Your task to perform on an android device: Go to internet settings Image 0: 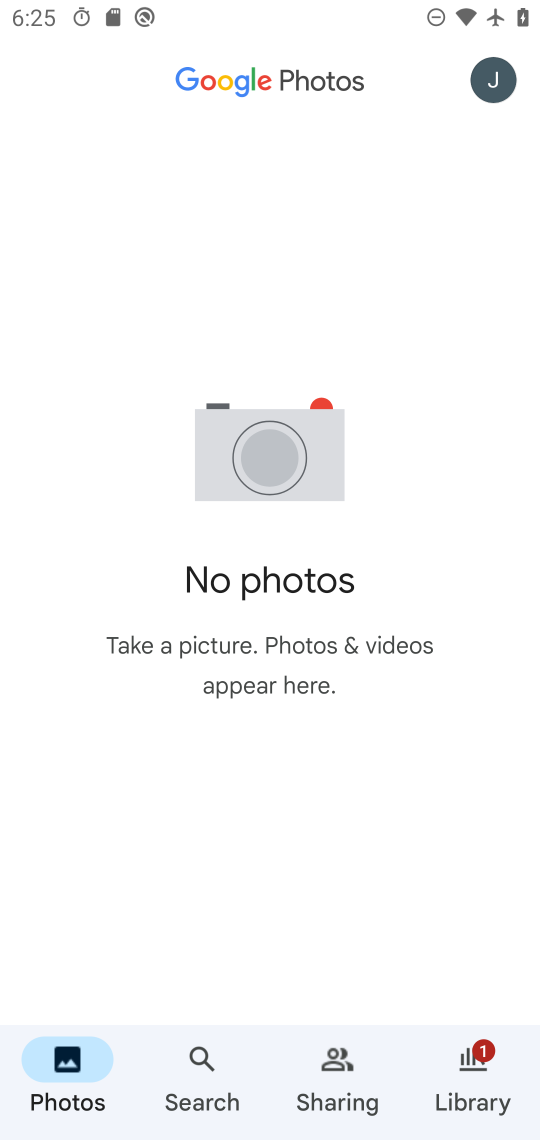
Step 0: press home button
Your task to perform on an android device: Go to internet settings Image 1: 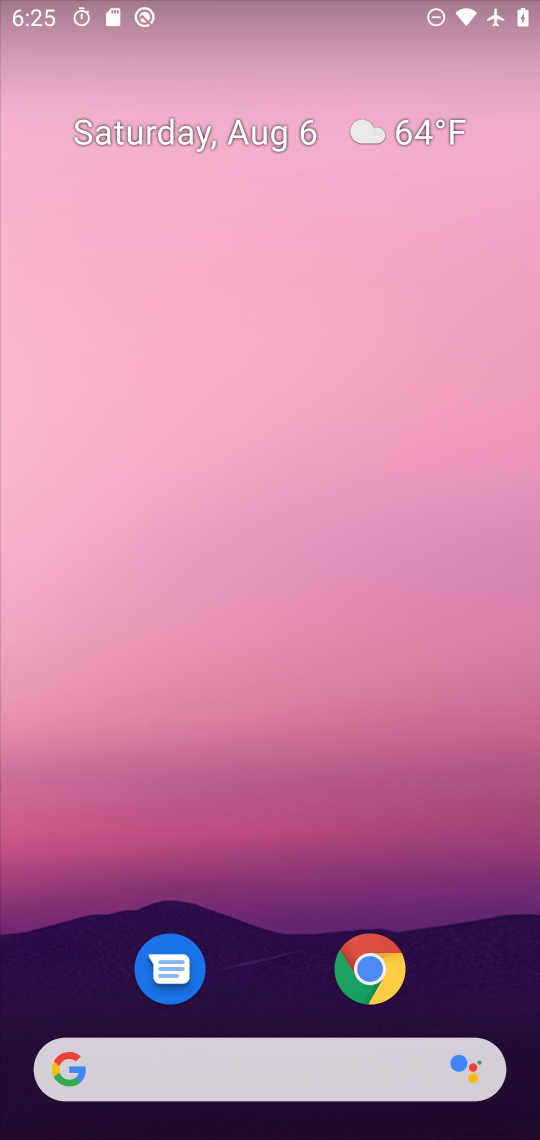
Step 1: drag from (270, 998) to (433, 18)
Your task to perform on an android device: Go to internet settings Image 2: 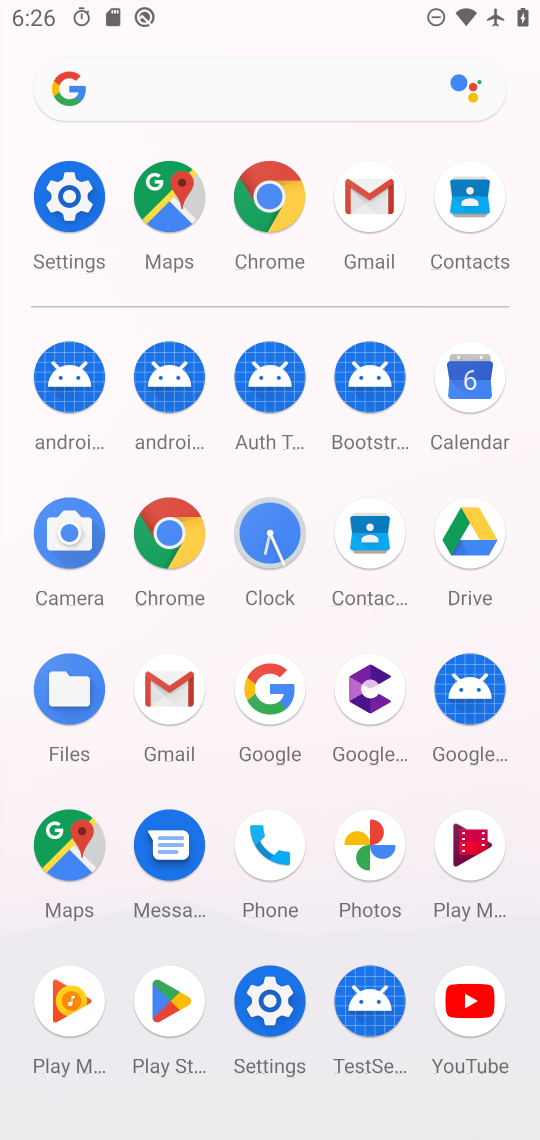
Step 2: click (77, 207)
Your task to perform on an android device: Go to internet settings Image 3: 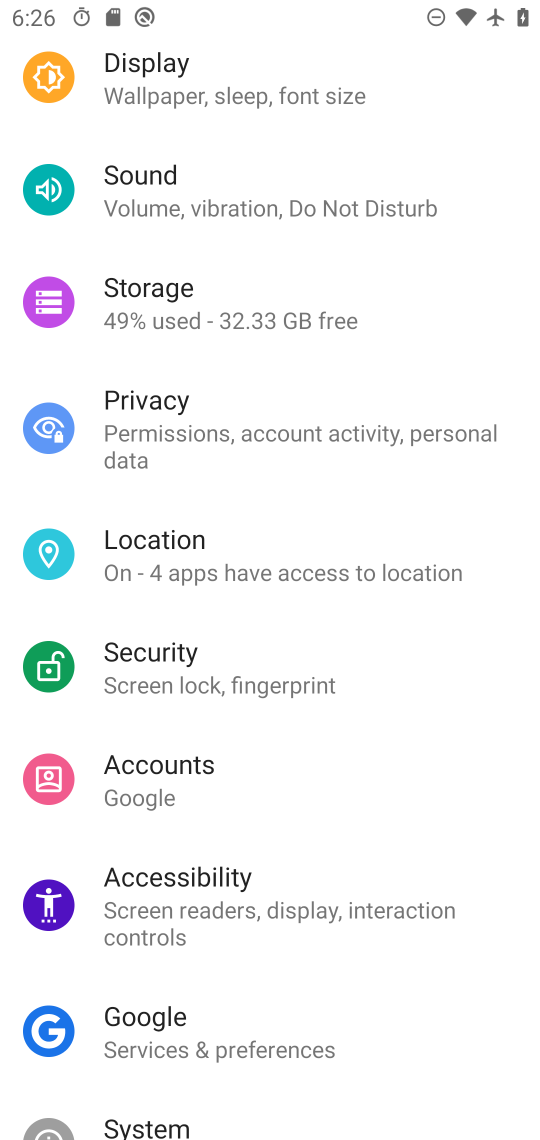
Step 3: drag from (430, 276) to (263, 1086)
Your task to perform on an android device: Go to internet settings Image 4: 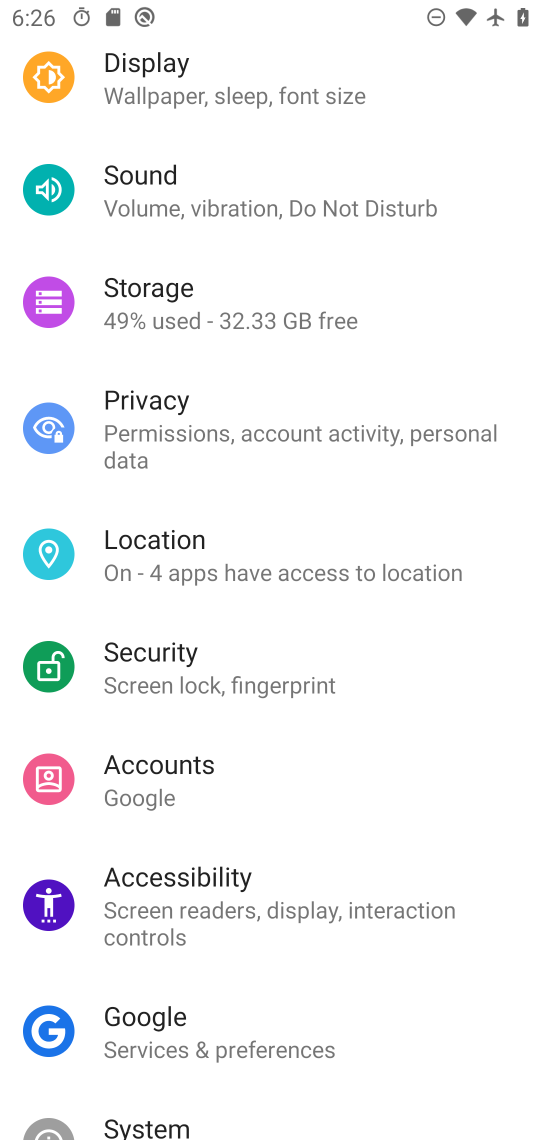
Step 4: drag from (398, 130) to (316, 1072)
Your task to perform on an android device: Go to internet settings Image 5: 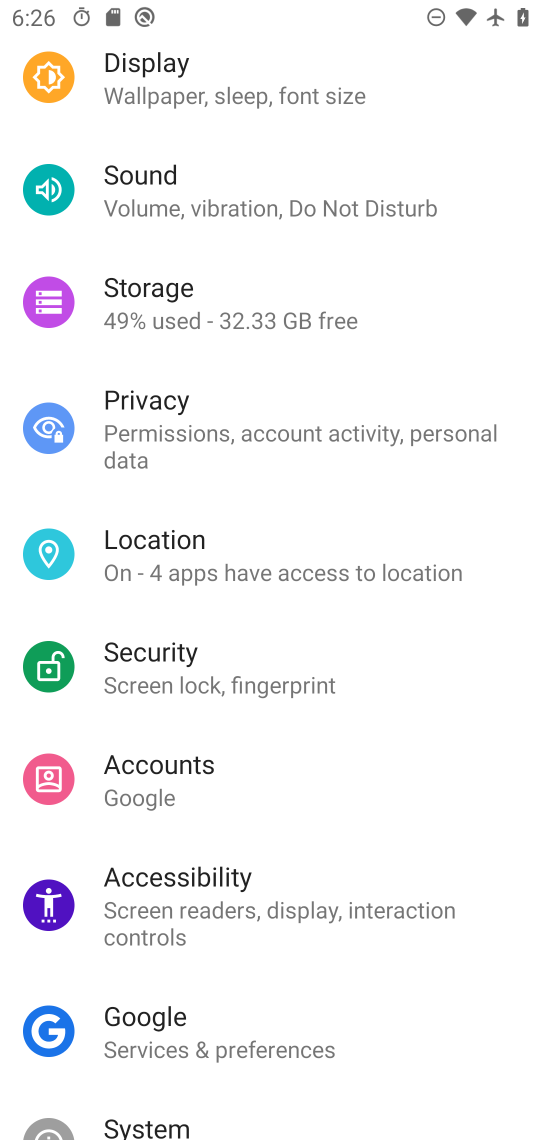
Step 5: drag from (323, 375) to (338, 1046)
Your task to perform on an android device: Go to internet settings Image 6: 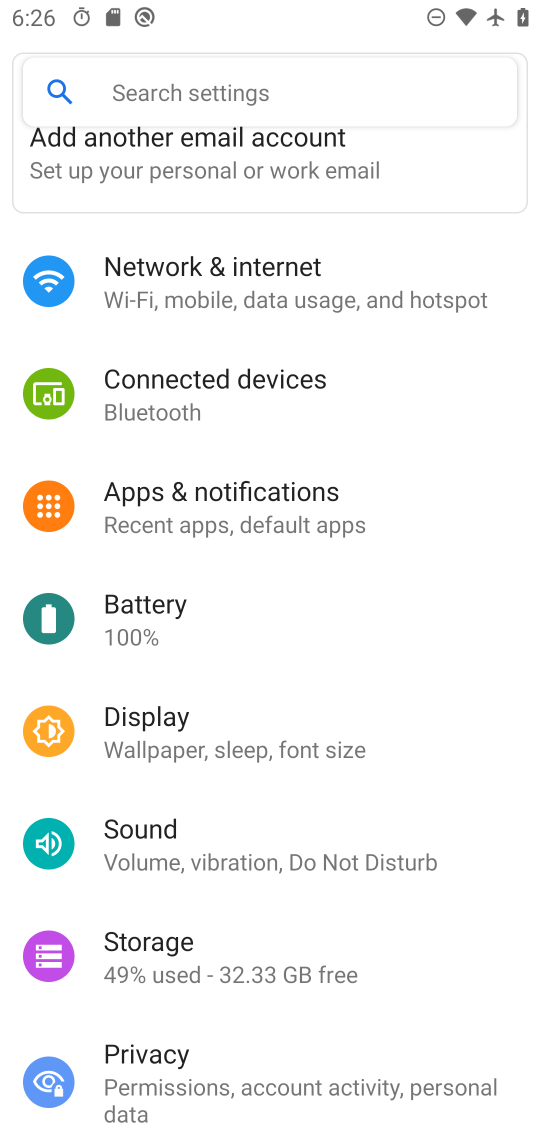
Step 6: click (202, 292)
Your task to perform on an android device: Go to internet settings Image 7: 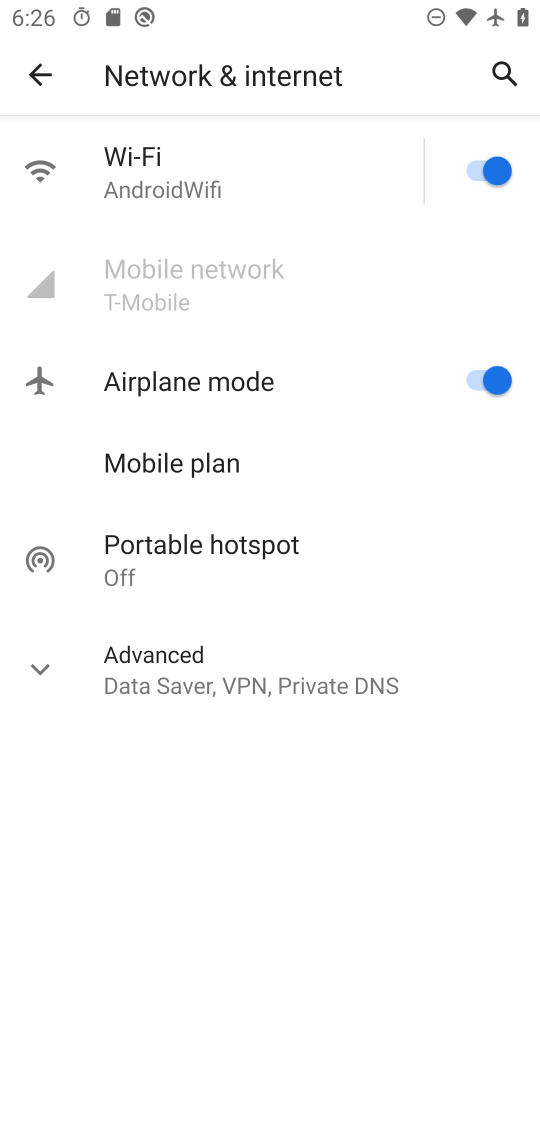
Step 7: task complete